Your task to perform on an android device: toggle notifications settings in the gmail app Image 0: 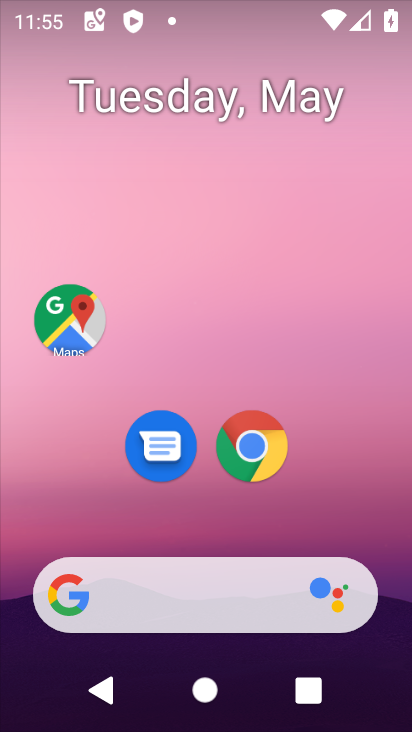
Step 0: drag from (232, 719) to (234, 151)
Your task to perform on an android device: toggle notifications settings in the gmail app Image 1: 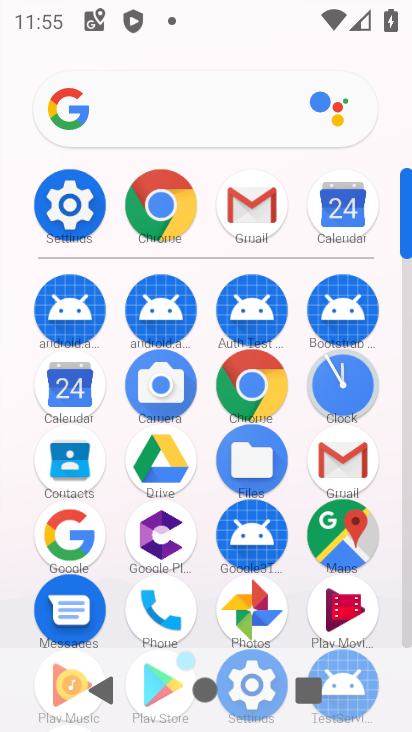
Step 1: click (251, 209)
Your task to perform on an android device: toggle notifications settings in the gmail app Image 2: 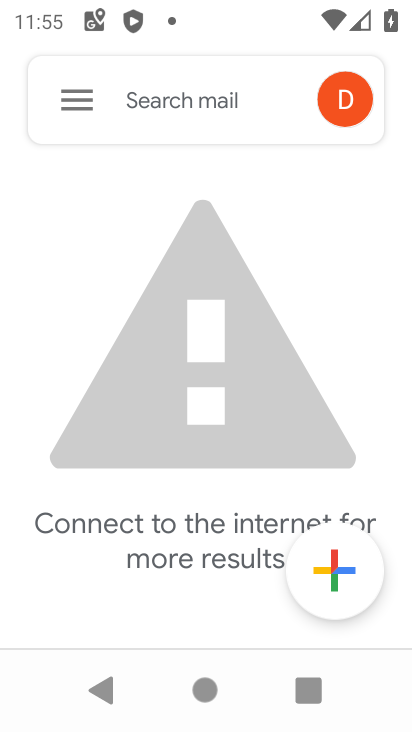
Step 2: click (63, 100)
Your task to perform on an android device: toggle notifications settings in the gmail app Image 3: 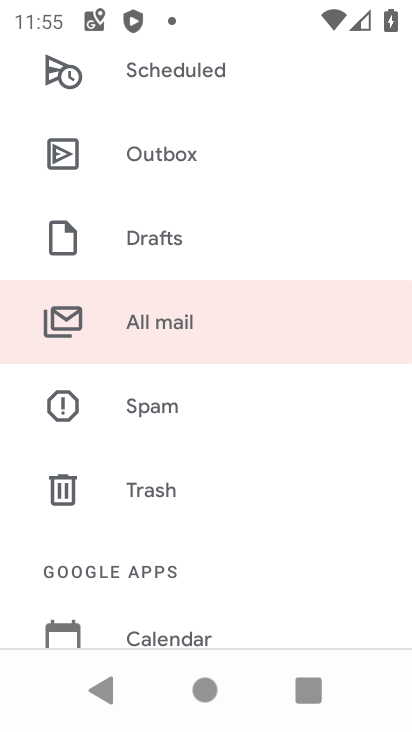
Step 3: drag from (154, 578) to (170, 154)
Your task to perform on an android device: toggle notifications settings in the gmail app Image 4: 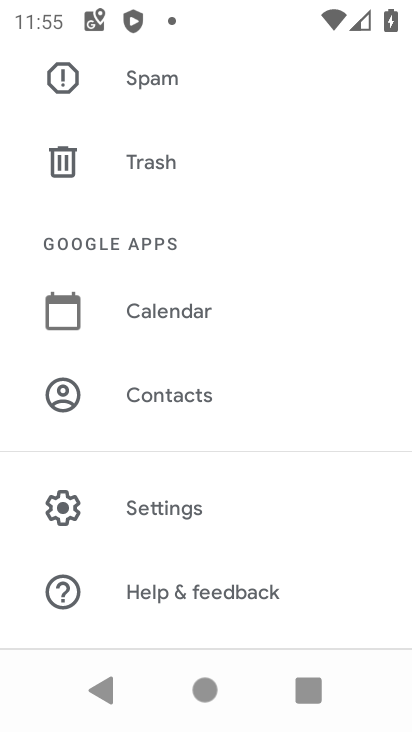
Step 4: click (153, 508)
Your task to perform on an android device: toggle notifications settings in the gmail app Image 5: 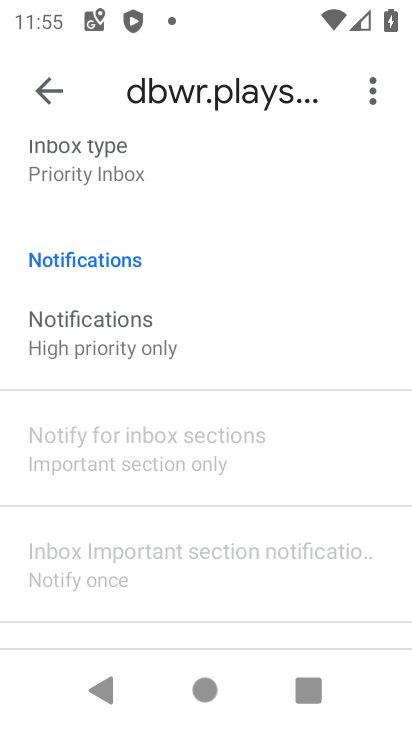
Step 5: click (132, 342)
Your task to perform on an android device: toggle notifications settings in the gmail app Image 6: 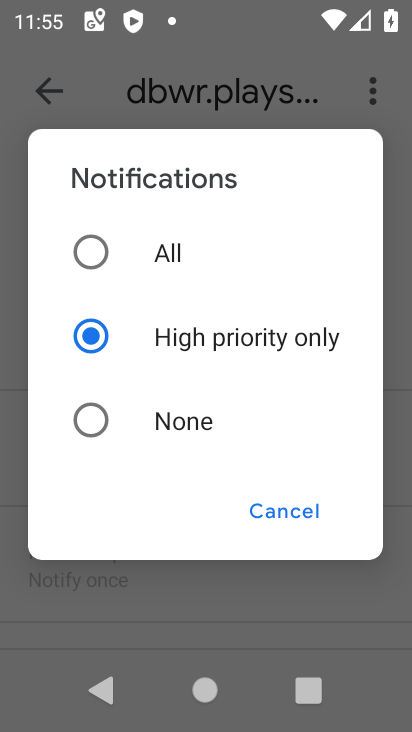
Step 6: click (84, 414)
Your task to perform on an android device: toggle notifications settings in the gmail app Image 7: 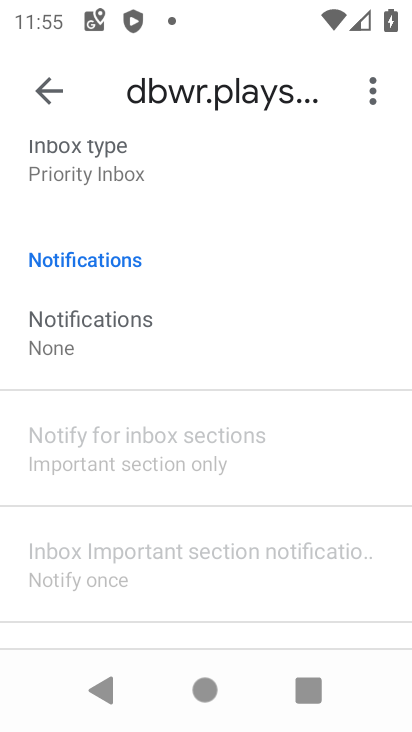
Step 7: task complete